Your task to perform on an android device: Open calendar and show me the third week of next month Image 0: 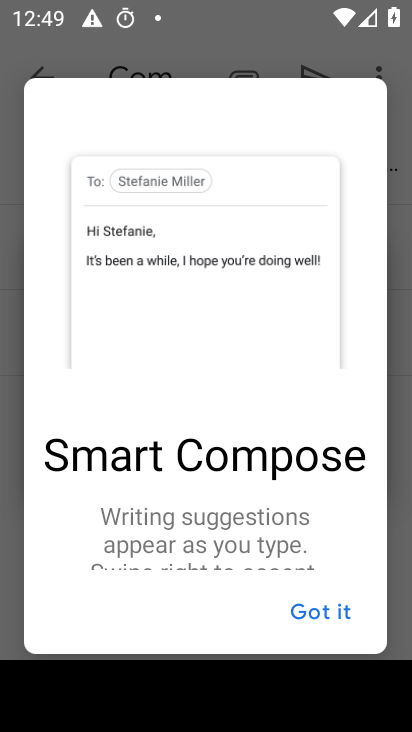
Step 0: press home button
Your task to perform on an android device: Open calendar and show me the third week of next month Image 1: 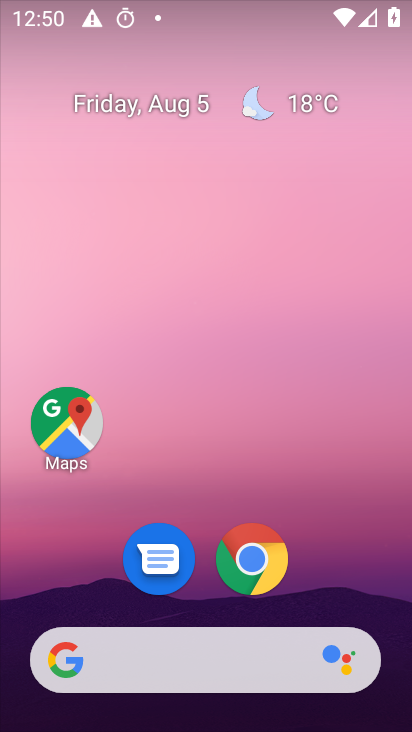
Step 1: drag from (60, 703) to (262, 353)
Your task to perform on an android device: Open calendar and show me the third week of next month Image 2: 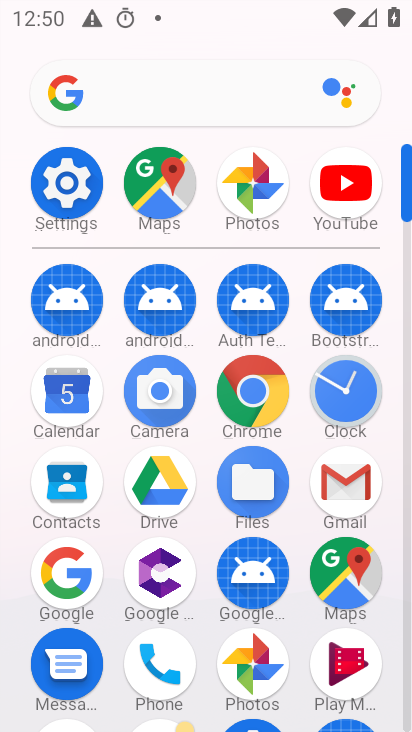
Step 2: click (59, 400)
Your task to perform on an android device: Open calendar and show me the third week of next month Image 3: 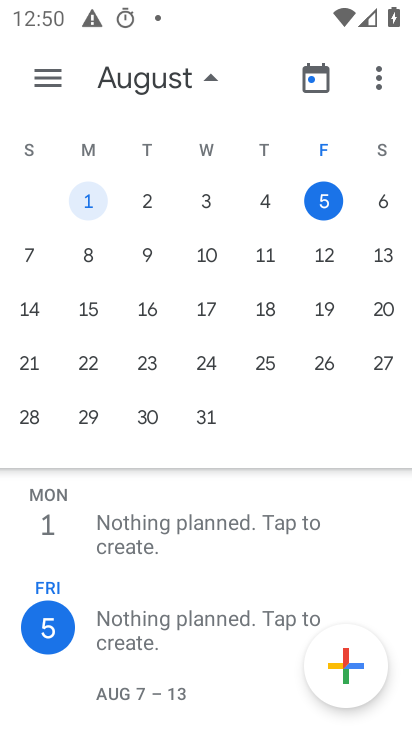
Step 3: drag from (396, 269) to (15, 507)
Your task to perform on an android device: Open calendar and show me the third week of next month Image 4: 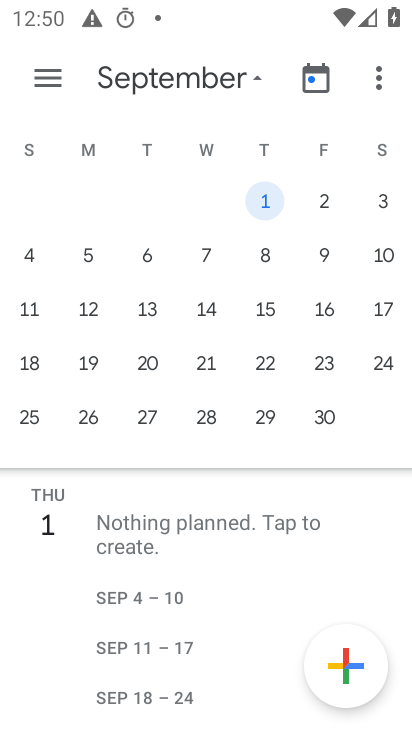
Step 4: click (93, 316)
Your task to perform on an android device: Open calendar and show me the third week of next month Image 5: 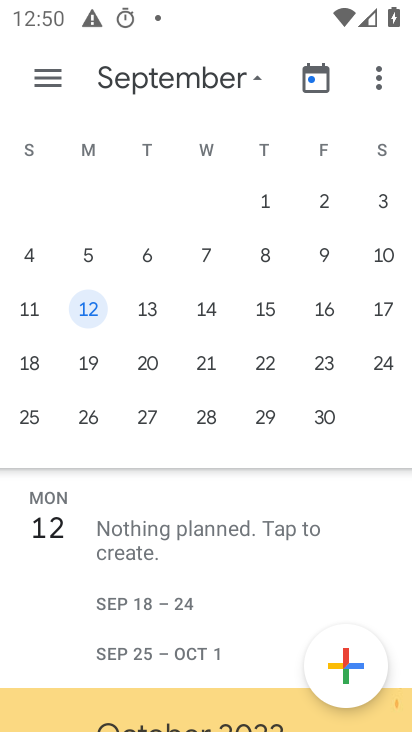
Step 5: task complete